Your task to perform on an android device: Open Chrome and go to settings Image 0: 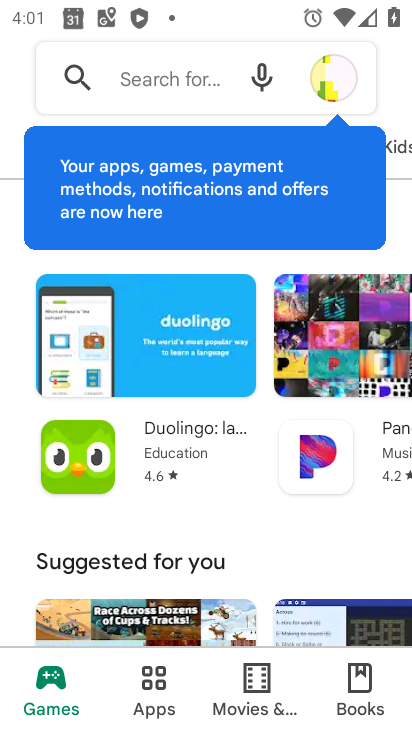
Step 0: press home button
Your task to perform on an android device: Open Chrome and go to settings Image 1: 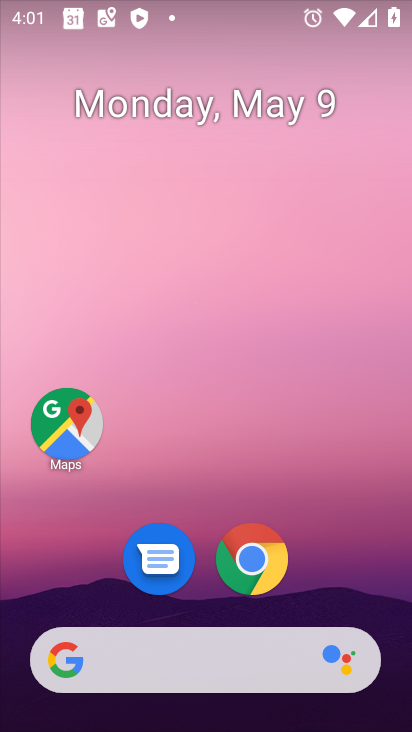
Step 1: click (253, 557)
Your task to perform on an android device: Open Chrome and go to settings Image 2: 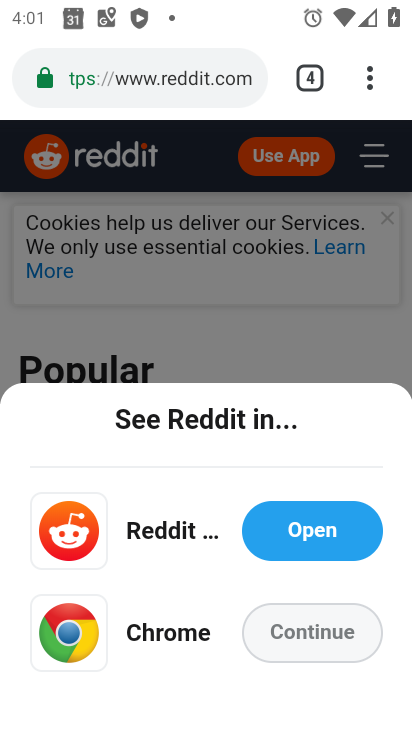
Step 2: click (369, 84)
Your task to perform on an android device: Open Chrome and go to settings Image 3: 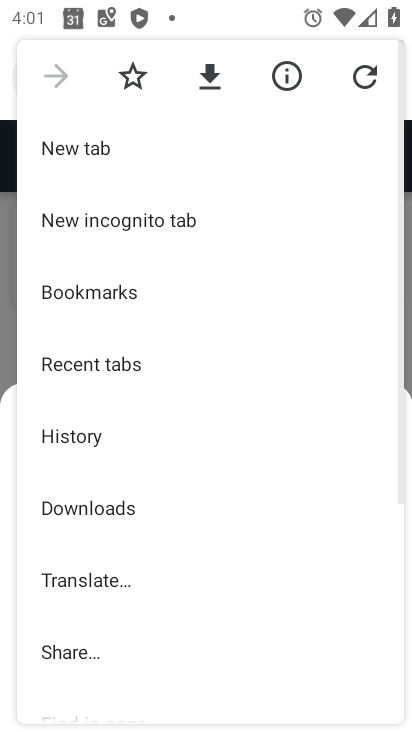
Step 3: drag from (148, 657) to (154, 303)
Your task to perform on an android device: Open Chrome and go to settings Image 4: 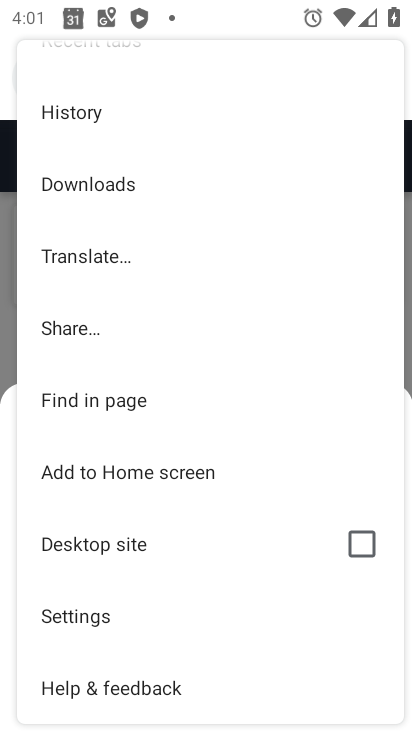
Step 4: click (87, 608)
Your task to perform on an android device: Open Chrome and go to settings Image 5: 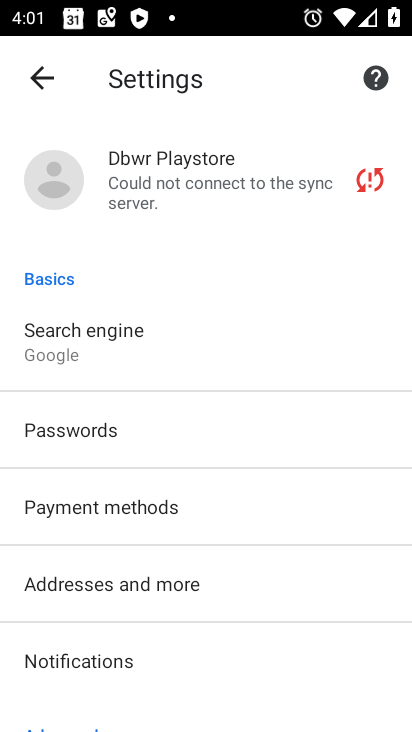
Step 5: task complete